Your task to perform on an android device: Search for the best selling books on Target. Image 0: 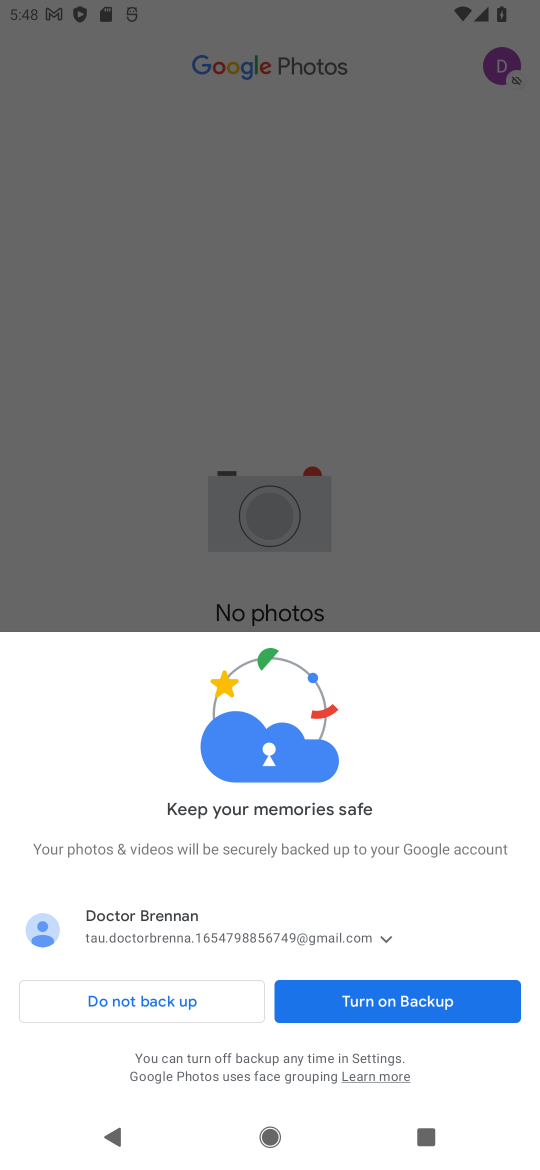
Step 0: press home button
Your task to perform on an android device: Search for the best selling books on Target. Image 1: 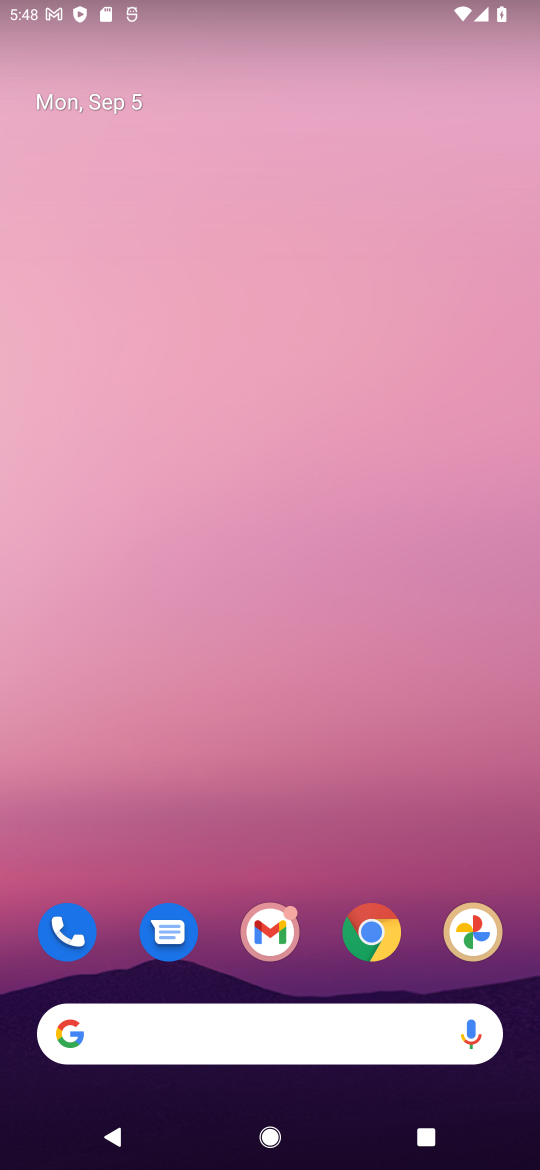
Step 1: drag from (303, 874) to (288, 139)
Your task to perform on an android device: Search for the best selling books on Target. Image 2: 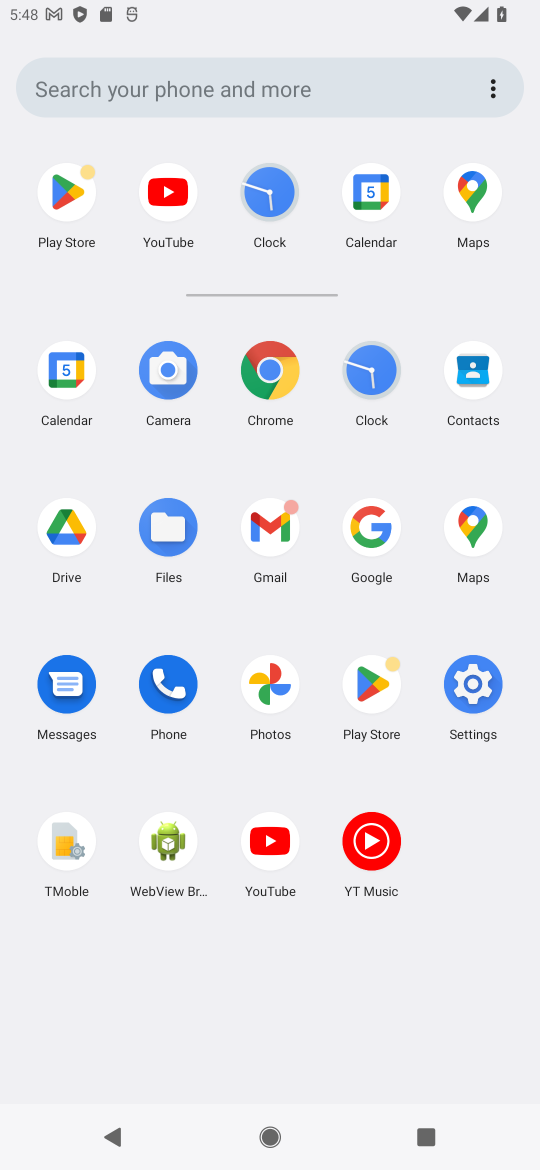
Step 2: click (371, 529)
Your task to perform on an android device: Search for the best selling books on Target. Image 3: 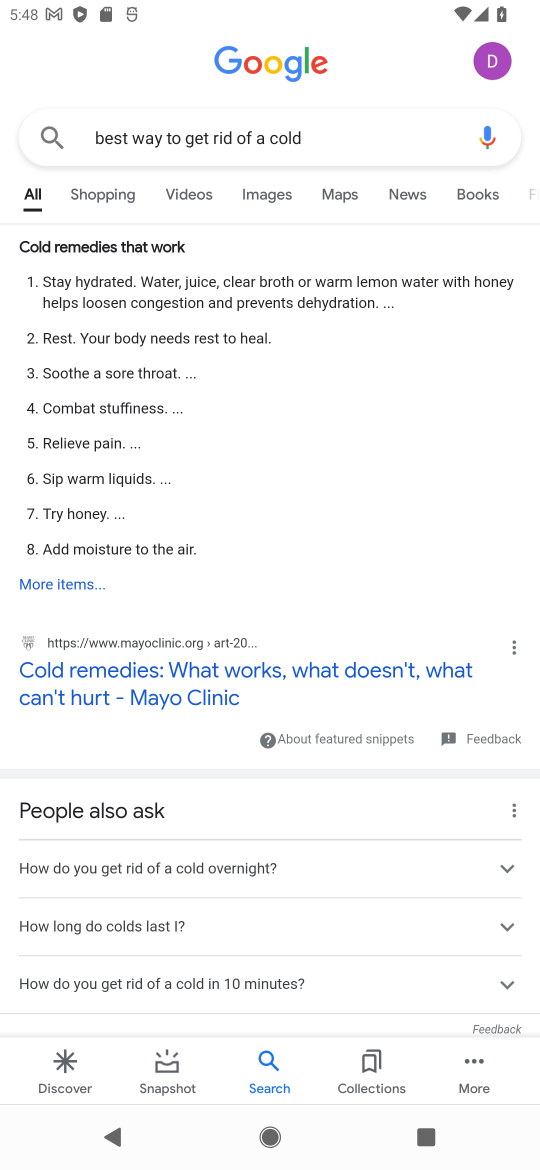
Step 3: click (335, 127)
Your task to perform on an android device: Search for the best selling books on Target. Image 4: 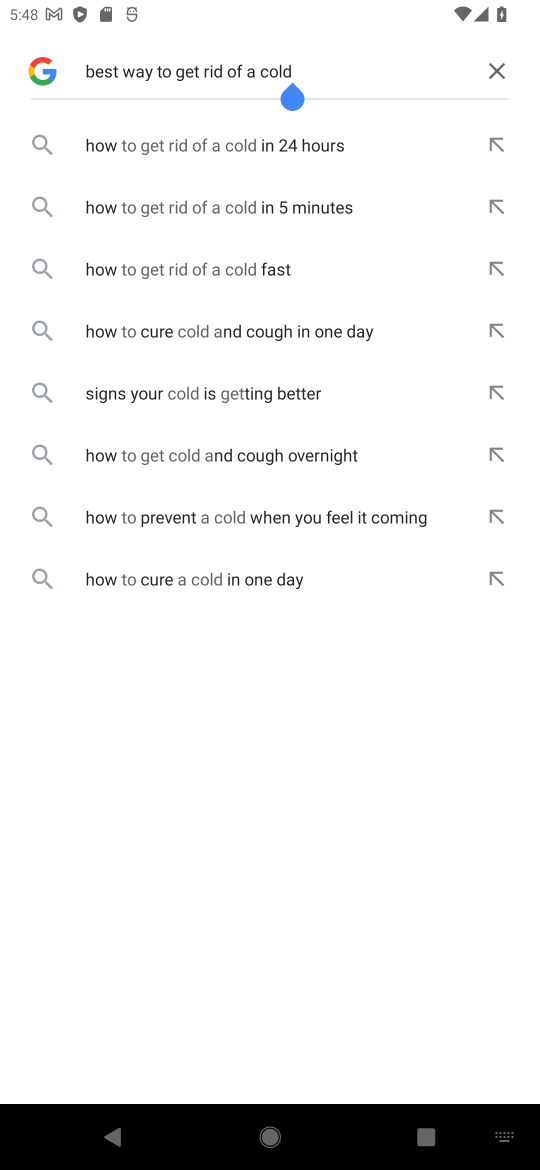
Step 4: click (499, 72)
Your task to perform on an android device: Search for the best selling books on Target. Image 5: 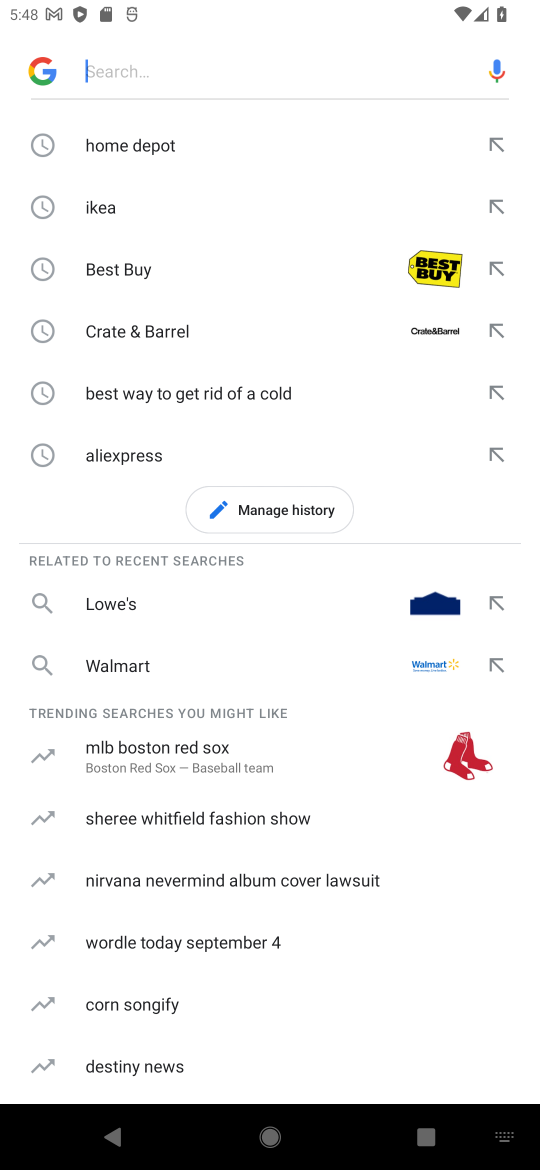
Step 5: type "Target"
Your task to perform on an android device: Search for the best selling books on Target. Image 6: 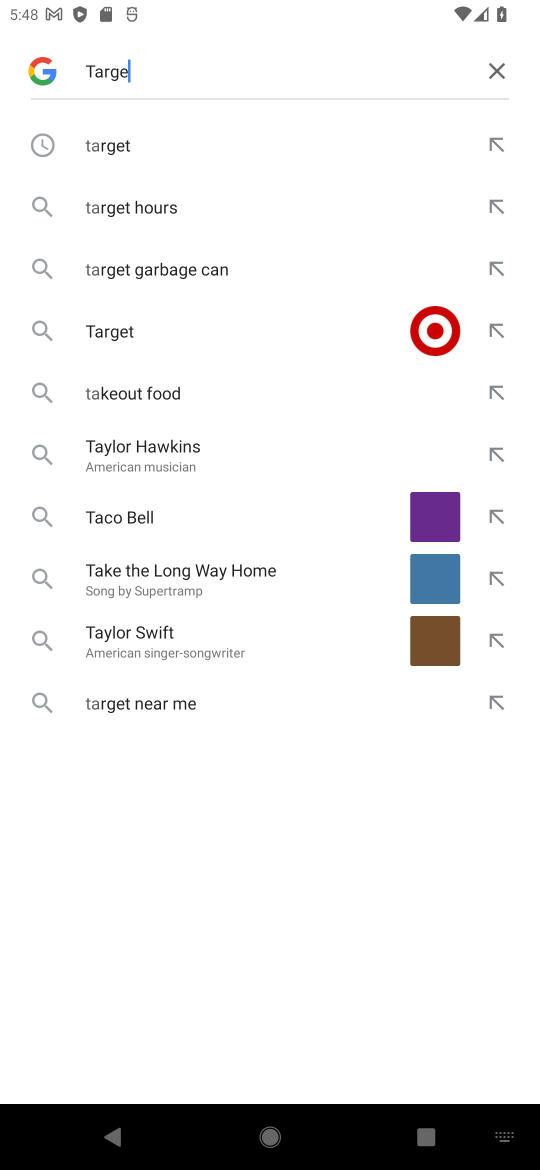
Step 6: type ""
Your task to perform on an android device: Search for the best selling books on Target. Image 7: 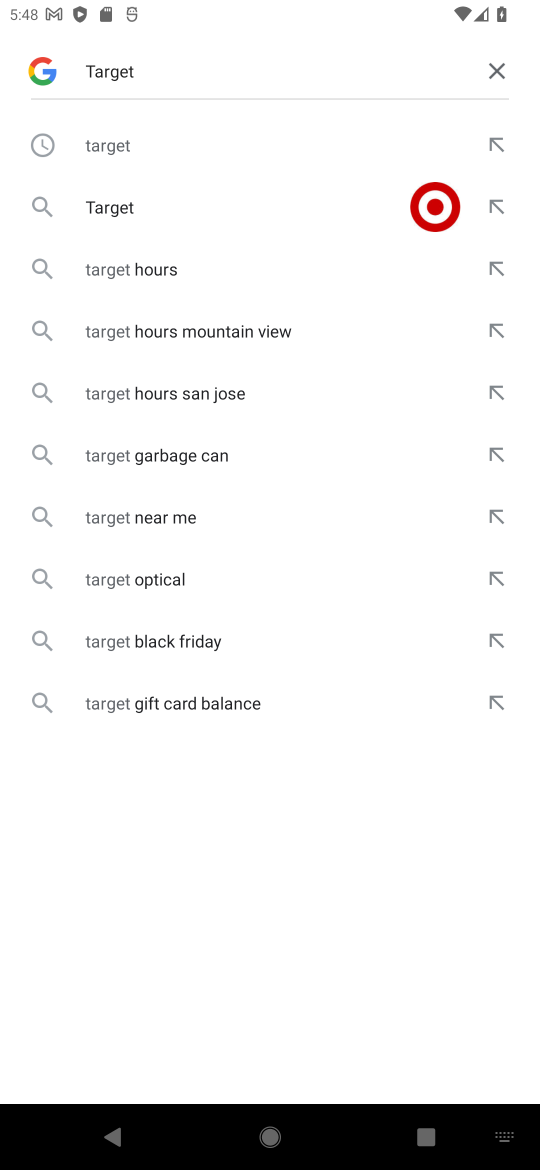
Step 7: click (112, 137)
Your task to perform on an android device: Search for the best selling books on Target. Image 8: 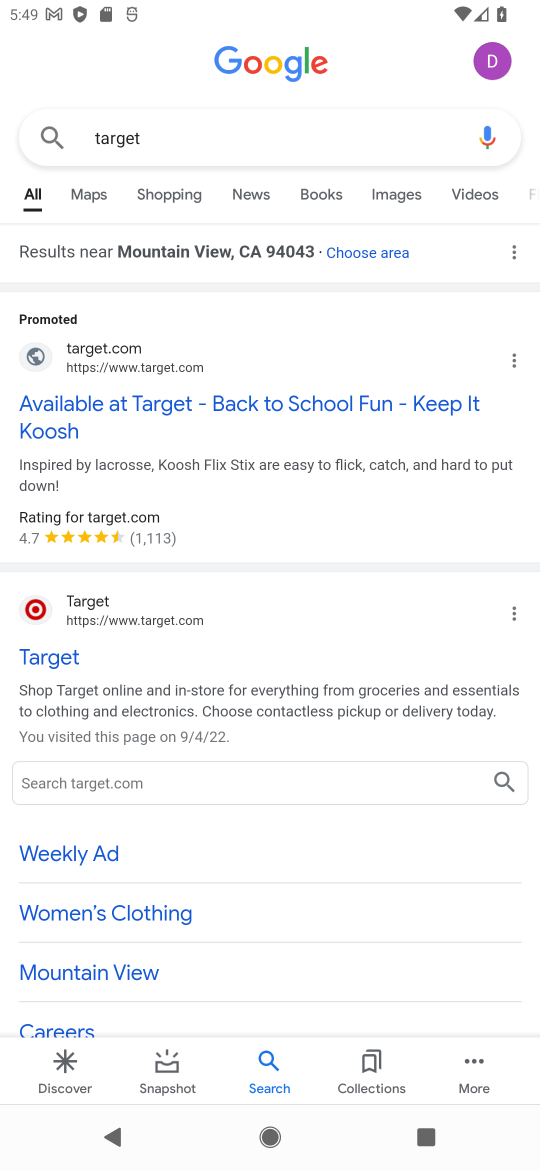
Step 8: click (57, 661)
Your task to perform on an android device: Search for the best selling books on Target. Image 9: 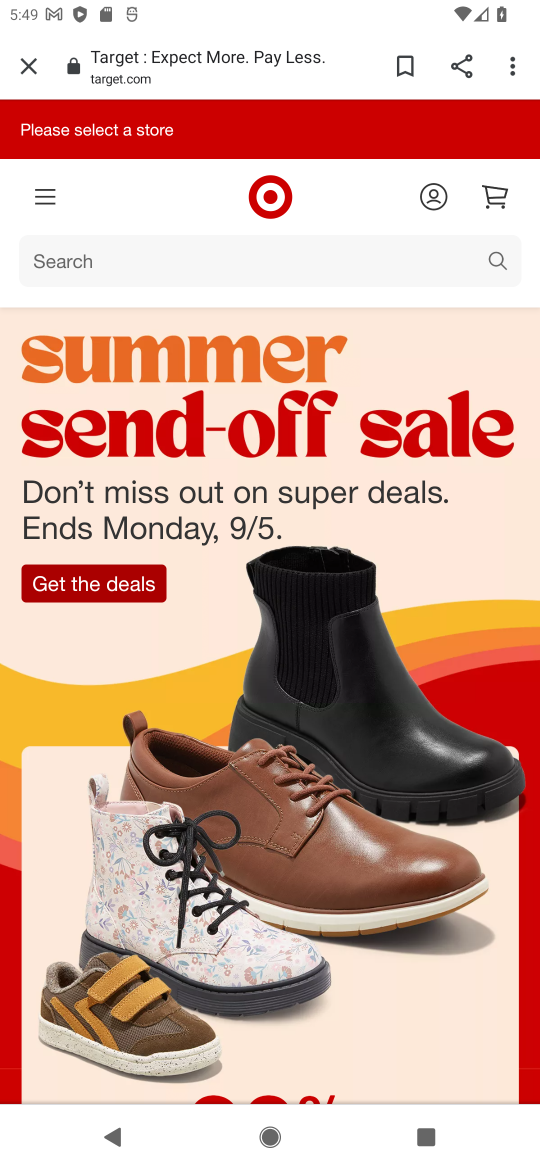
Step 9: click (246, 271)
Your task to perform on an android device: Search for the best selling books on Target. Image 10: 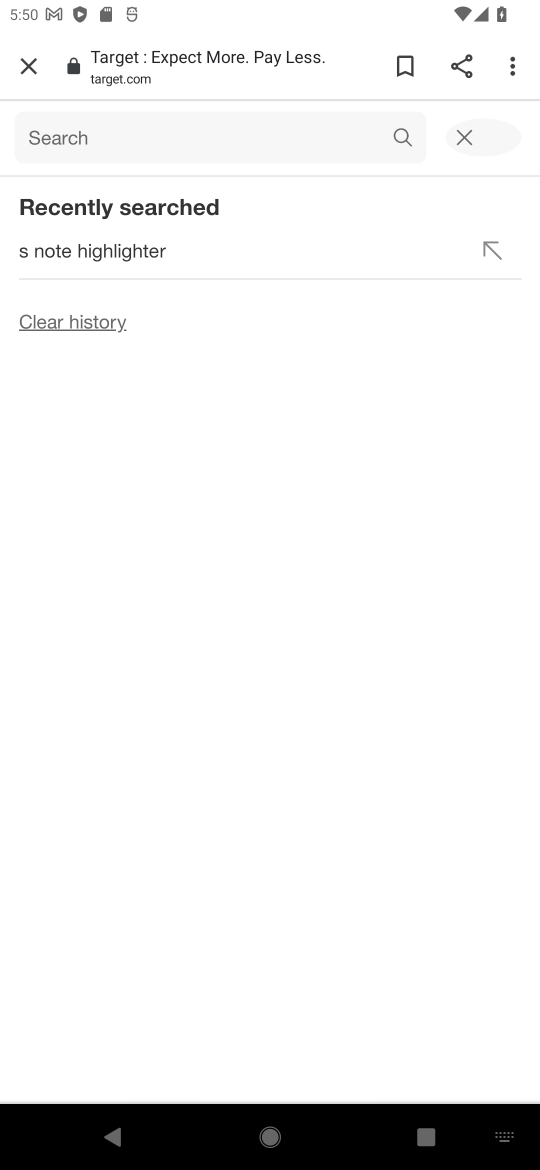
Step 10: click (229, 152)
Your task to perform on an android device: Search for the best selling books on Target. Image 11: 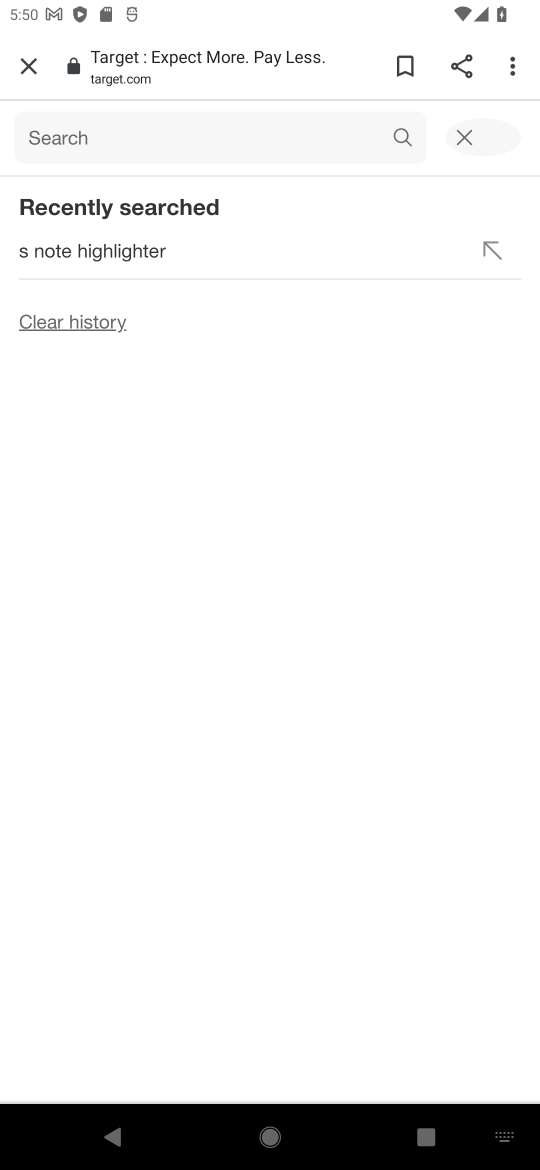
Step 11: type "best selling books"
Your task to perform on an android device: Search for the best selling books on Target. Image 12: 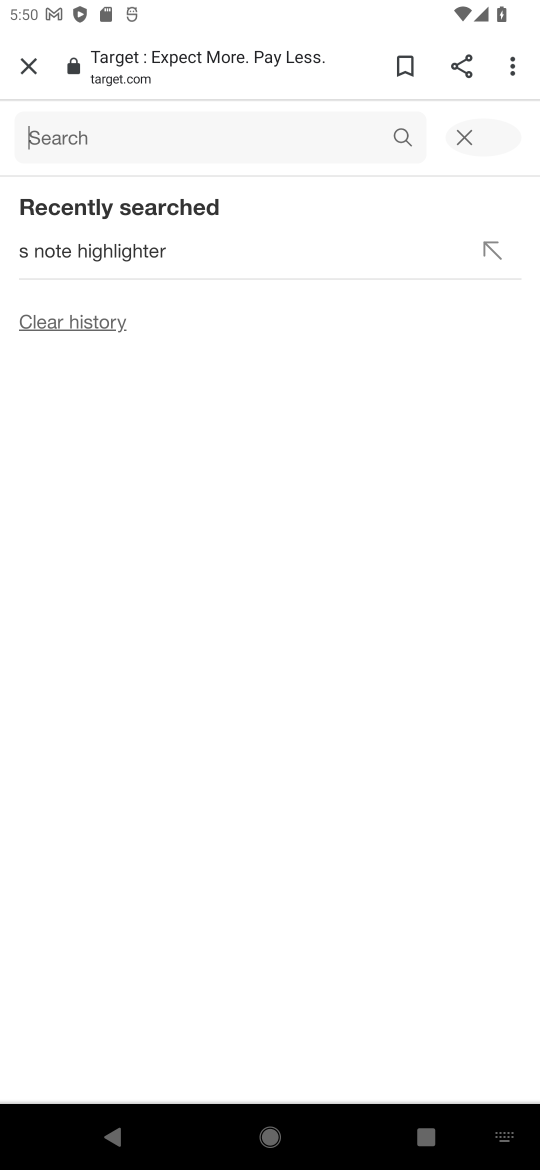
Step 12: type ""
Your task to perform on an android device: Search for the best selling books on Target. Image 13: 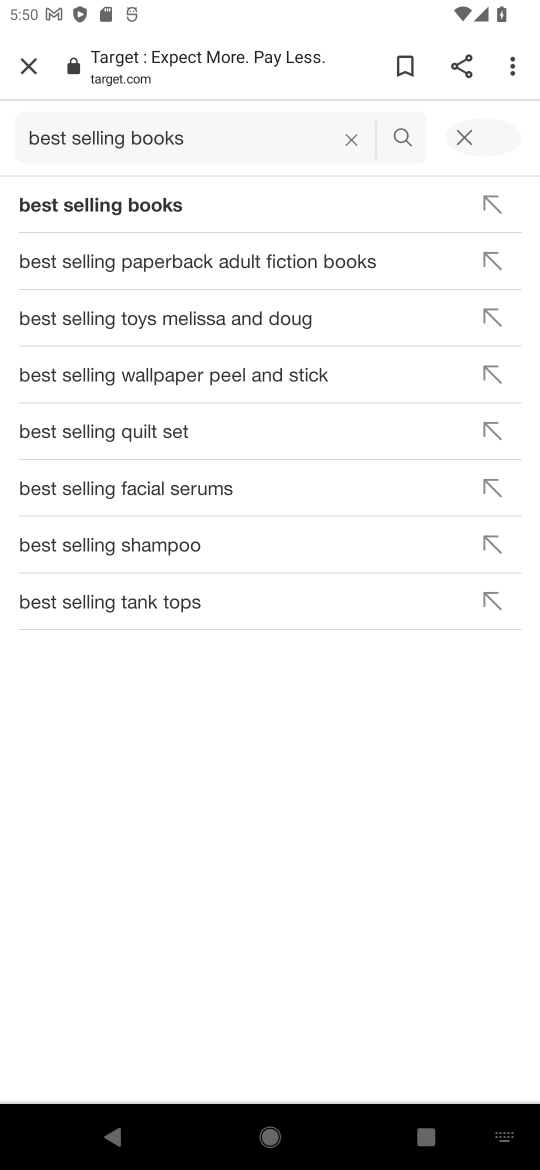
Step 13: click (129, 213)
Your task to perform on an android device: Search for the best selling books on Target. Image 14: 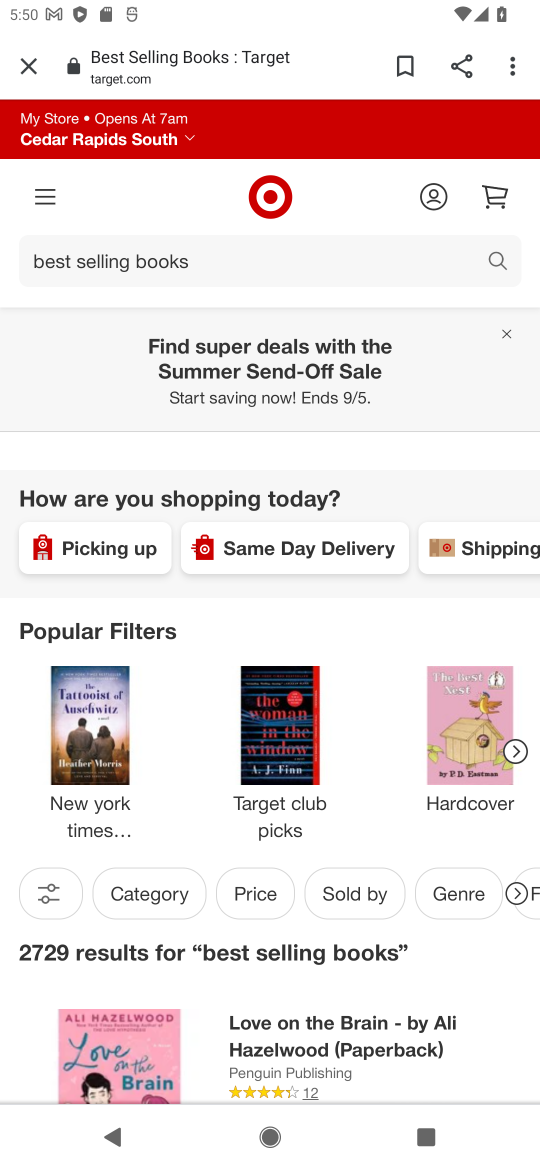
Step 14: task complete